Your task to perform on an android device: add a label to a message in the gmail app Image 0: 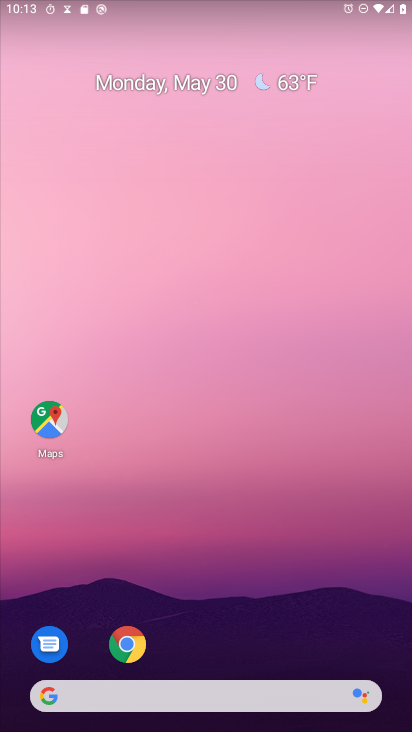
Step 0: drag from (224, 639) to (245, 5)
Your task to perform on an android device: add a label to a message in the gmail app Image 1: 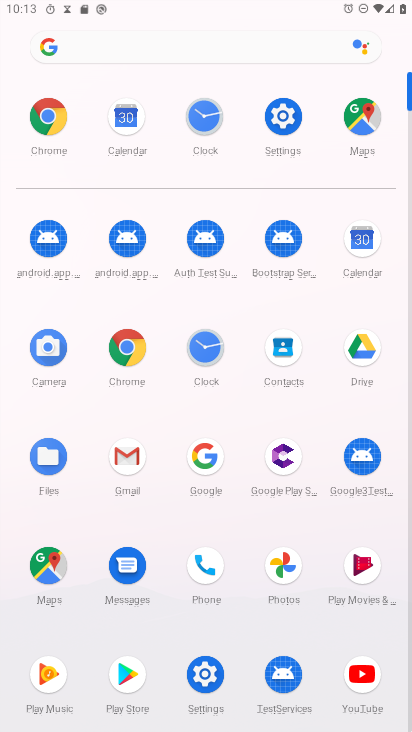
Step 1: click (131, 451)
Your task to perform on an android device: add a label to a message in the gmail app Image 2: 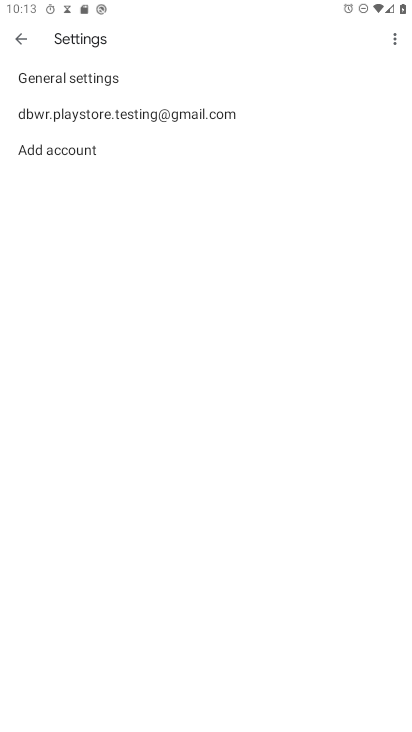
Step 2: task complete